Your task to perform on an android device: Go to privacy settings Image 0: 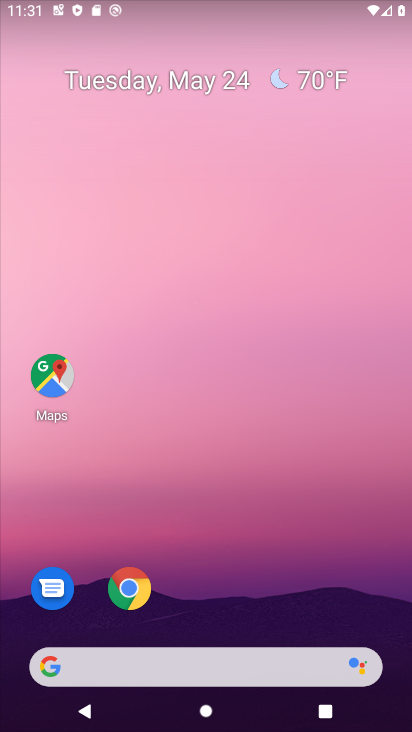
Step 0: press home button
Your task to perform on an android device: Go to privacy settings Image 1: 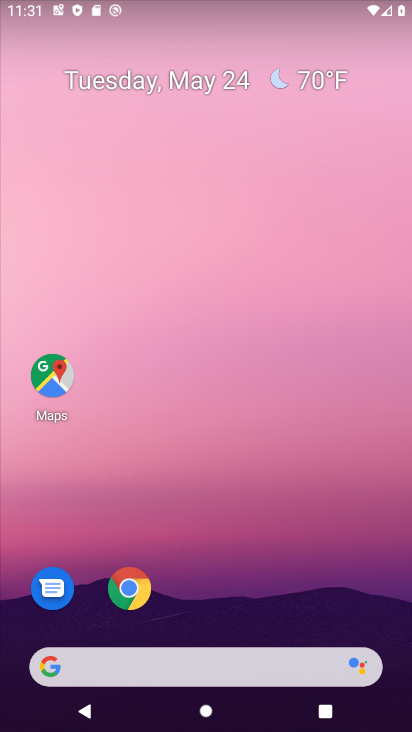
Step 1: drag from (211, 632) to (242, 38)
Your task to perform on an android device: Go to privacy settings Image 2: 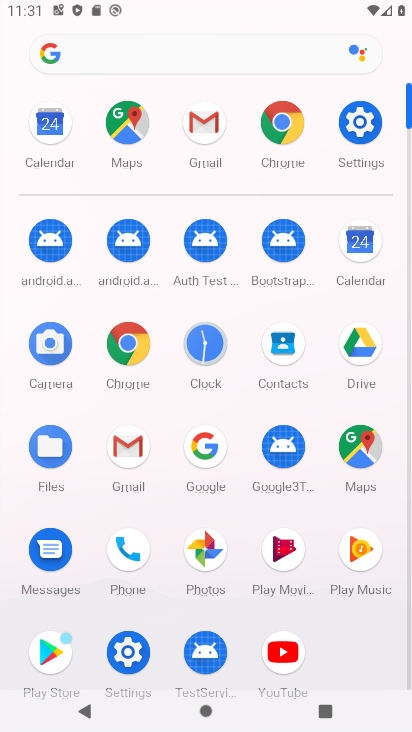
Step 2: click (358, 116)
Your task to perform on an android device: Go to privacy settings Image 3: 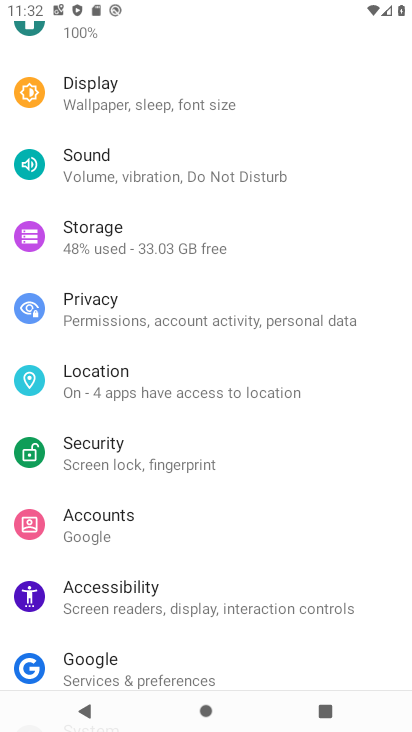
Step 3: click (126, 300)
Your task to perform on an android device: Go to privacy settings Image 4: 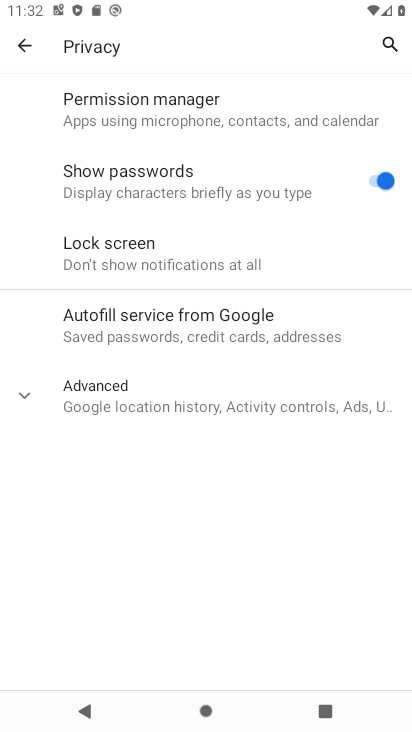
Step 4: click (23, 392)
Your task to perform on an android device: Go to privacy settings Image 5: 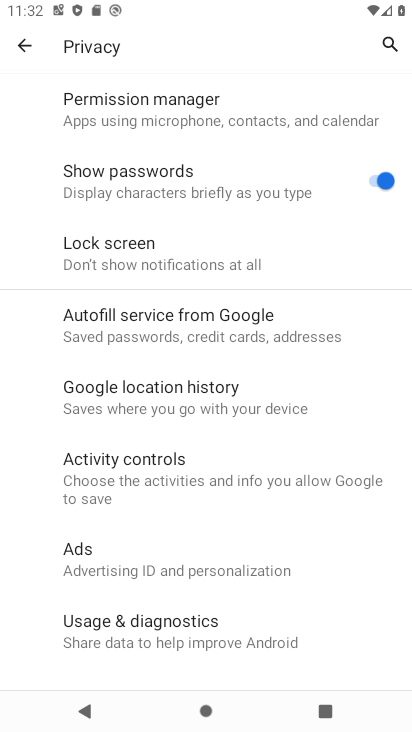
Step 5: task complete